Your task to perform on an android device: open app "The Home Depot" (install if not already installed) Image 0: 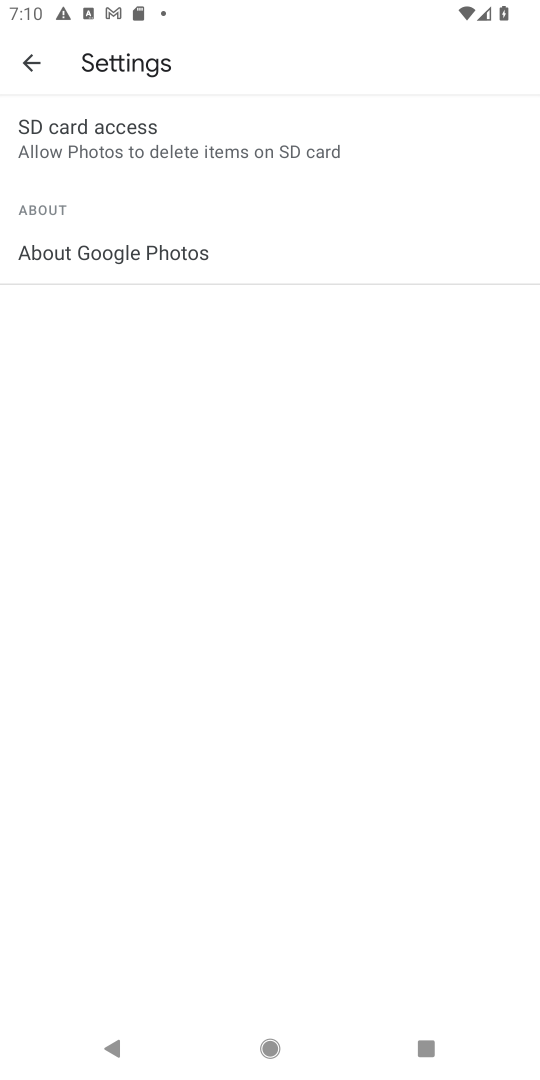
Step 0: press home button
Your task to perform on an android device: open app "The Home Depot" (install if not already installed) Image 1: 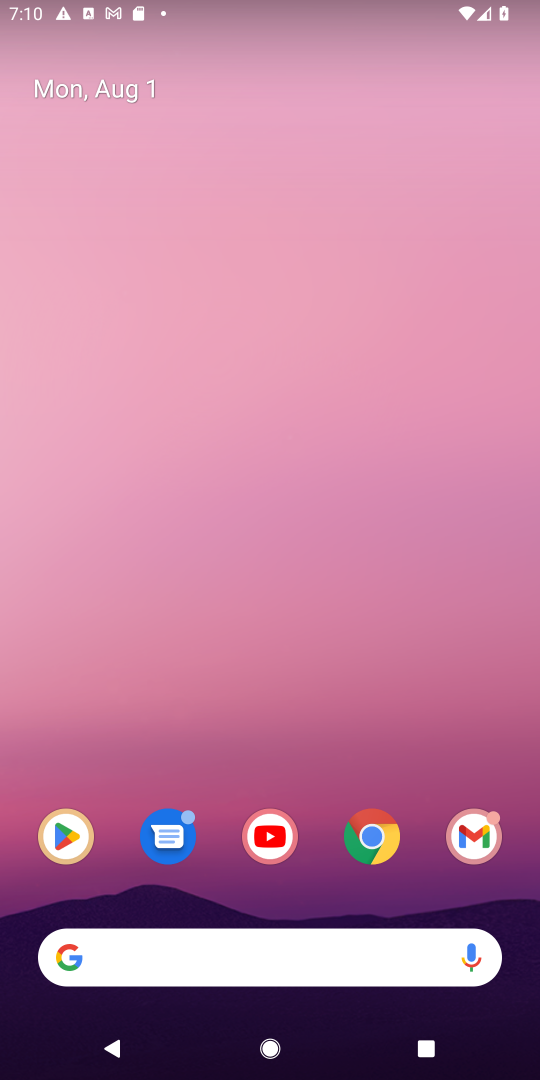
Step 1: click (70, 829)
Your task to perform on an android device: open app "The Home Depot" (install if not already installed) Image 2: 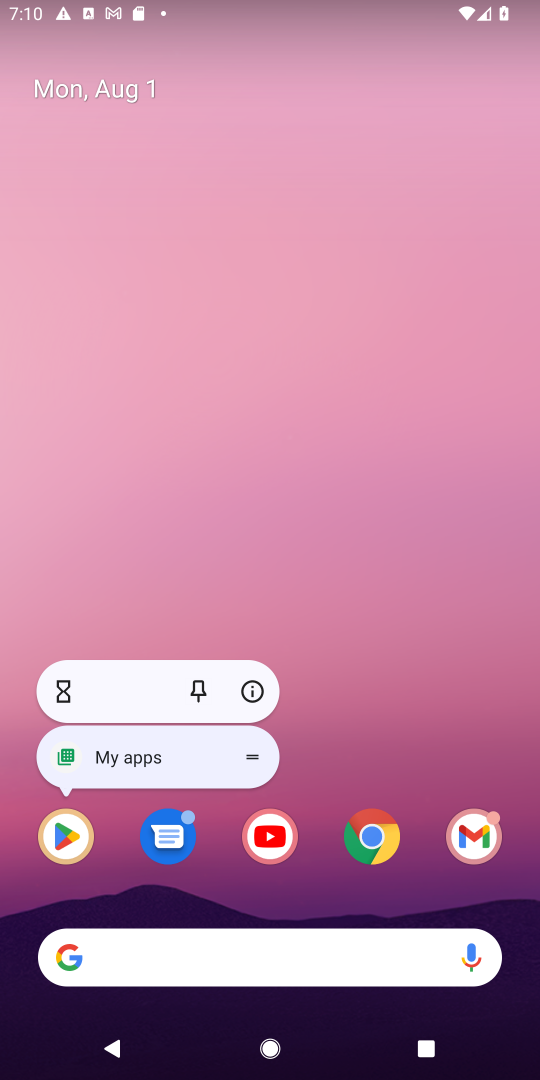
Step 2: click (70, 832)
Your task to perform on an android device: open app "The Home Depot" (install if not already installed) Image 3: 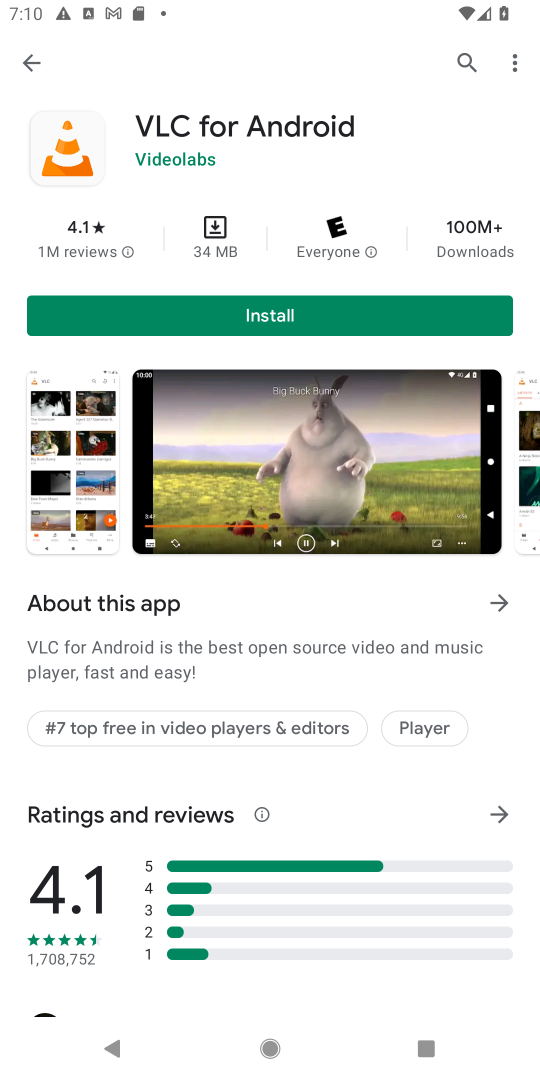
Step 3: click (461, 56)
Your task to perform on an android device: open app "The Home Depot" (install if not already installed) Image 4: 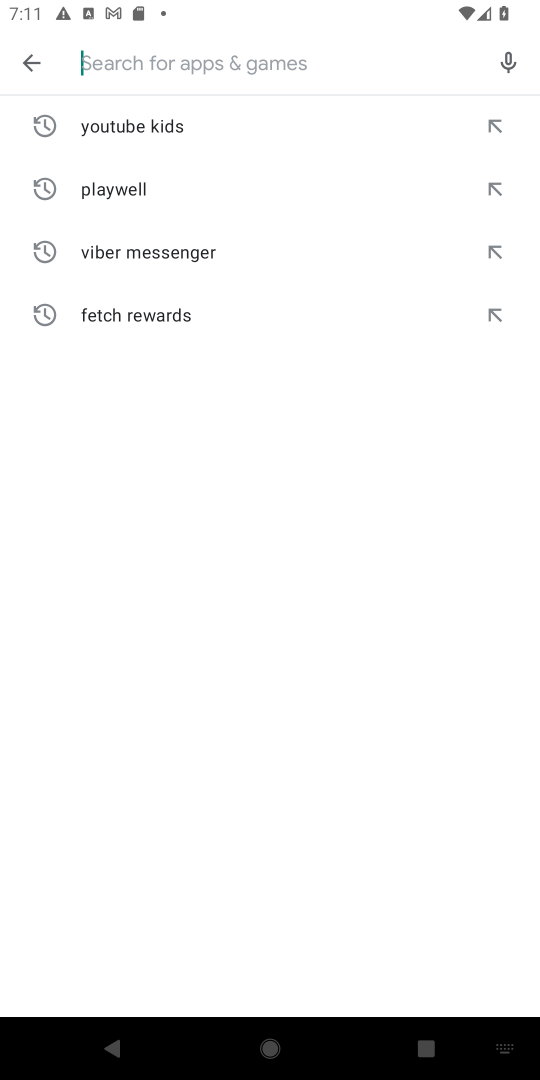
Step 4: type "The Home Depot"
Your task to perform on an android device: open app "The Home Depot" (install if not already installed) Image 5: 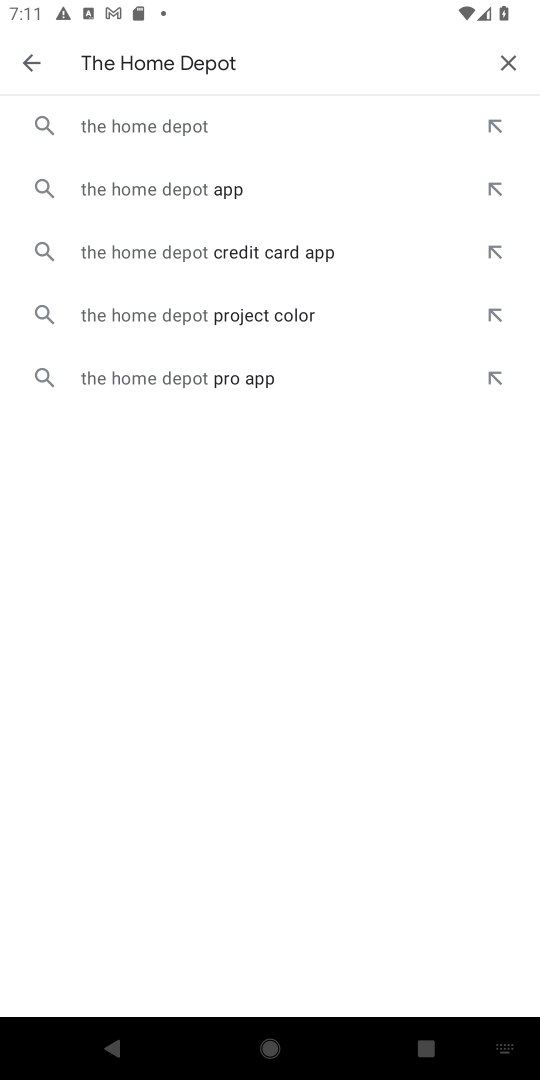
Step 5: click (164, 127)
Your task to perform on an android device: open app "The Home Depot" (install if not already installed) Image 6: 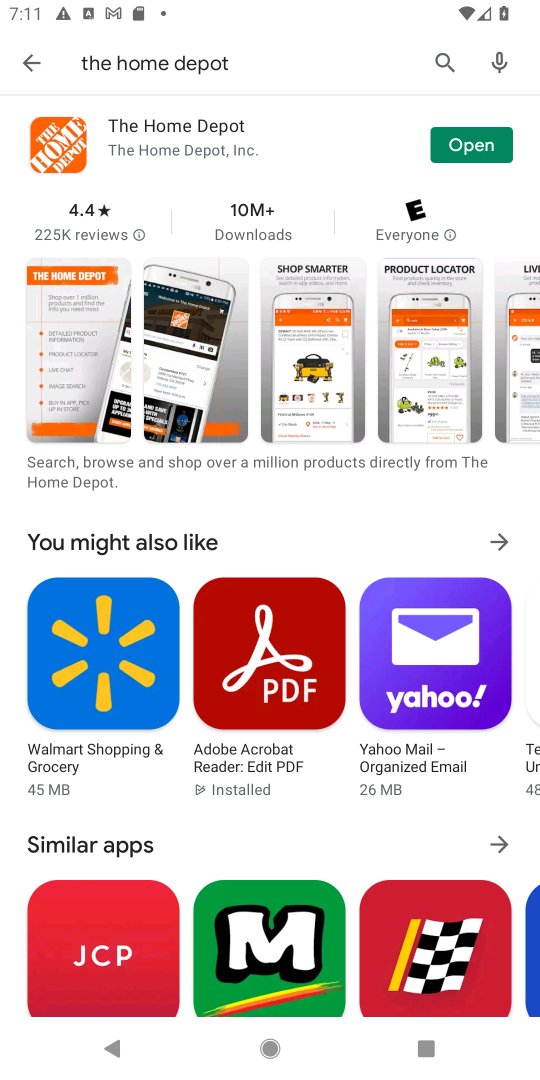
Step 6: click (495, 132)
Your task to perform on an android device: open app "The Home Depot" (install if not already installed) Image 7: 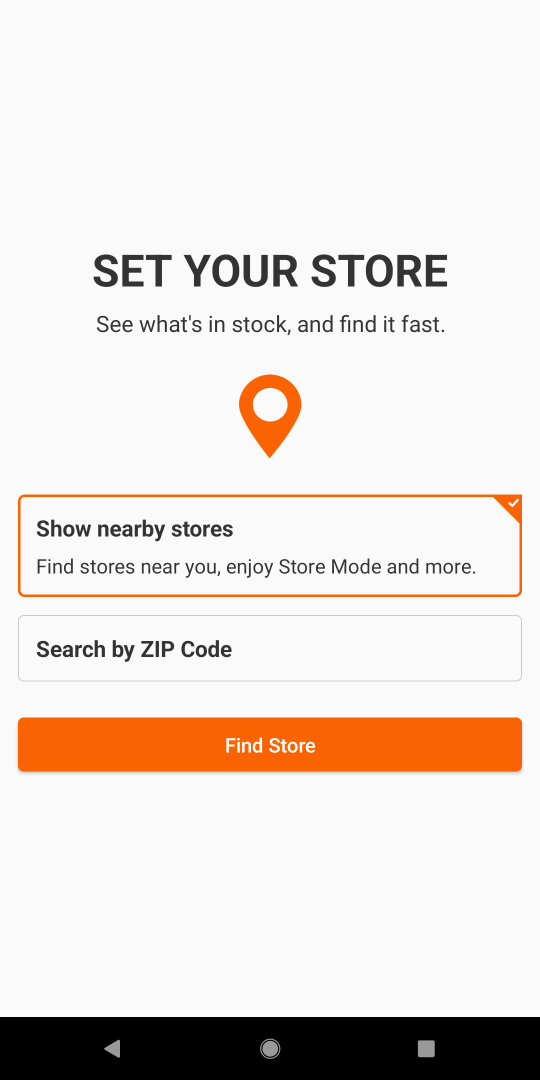
Step 7: task complete